Your task to perform on an android device: open app "Microsoft Authenticator" (install if not already installed) and go to login screen Image 0: 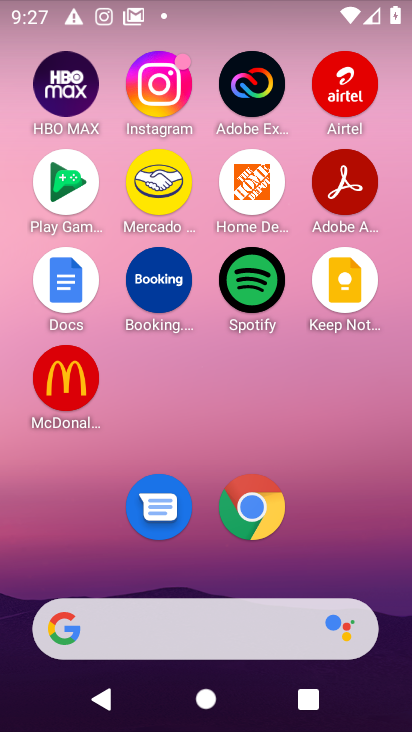
Step 0: drag from (197, 536) to (192, 66)
Your task to perform on an android device: open app "Microsoft Authenticator" (install if not already installed) and go to login screen Image 1: 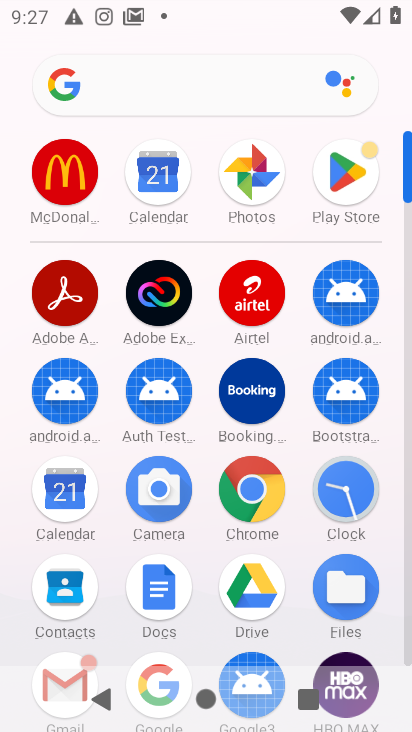
Step 1: click (357, 184)
Your task to perform on an android device: open app "Microsoft Authenticator" (install if not already installed) and go to login screen Image 2: 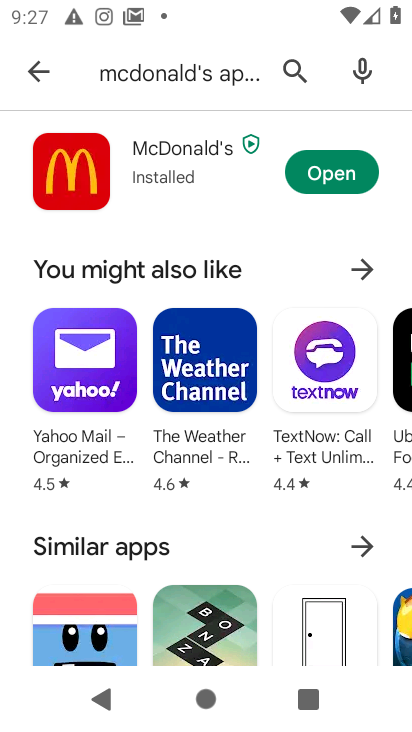
Step 2: click (44, 76)
Your task to perform on an android device: open app "Microsoft Authenticator" (install if not already installed) and go to login screen Image 3: 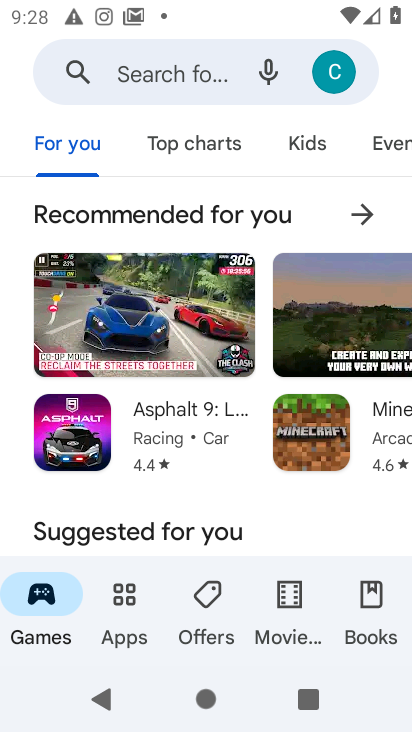
Step 3: click (123, 69)
Your task to perform on an android device: open app "Microsoft Authenticator" (install if not already installed) and go to login screen Image 4: 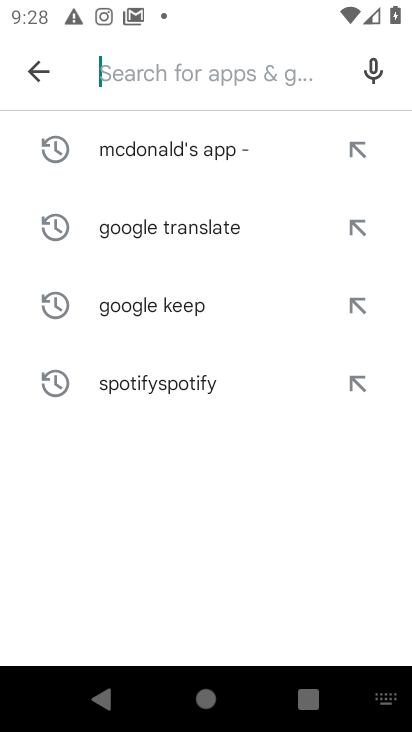
Step 4: type "Microsoft Authenticator"
Your task to perform on an android device: open app "Microsoft Authenticator" (install if not already installed) and go to login screen Image 5: 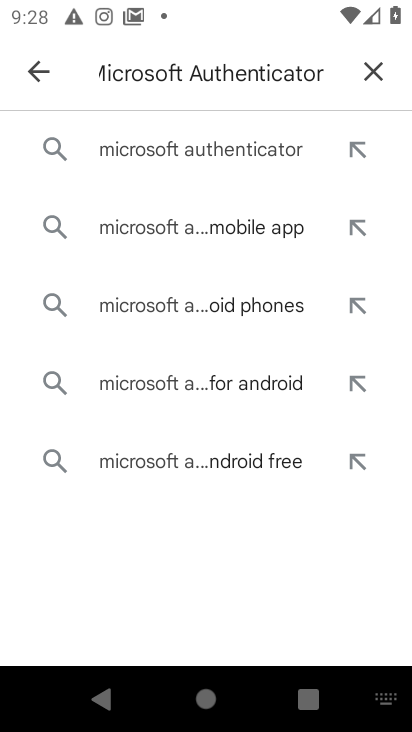
Step 5: click (242, 148)
Your task to perform on an android device: open app "Microsoft Authenticator" (install if not already installed) and go to login screen Image 6: 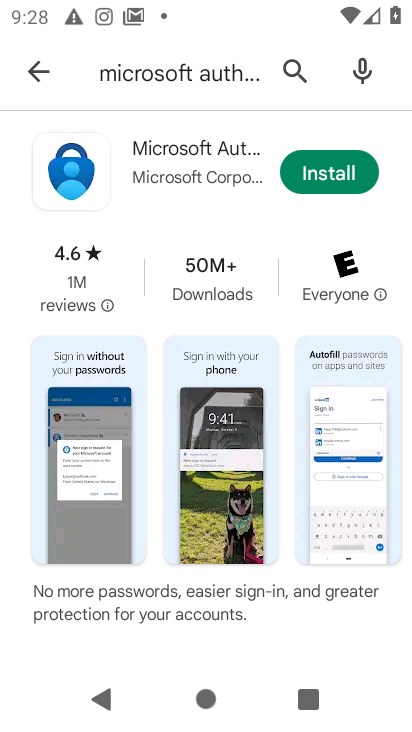
Step 6: click (317, 184)
Your task to perform on an android device: open app "Microsoft Authenticator" (install if not already installed) and go to login screen Image 7: 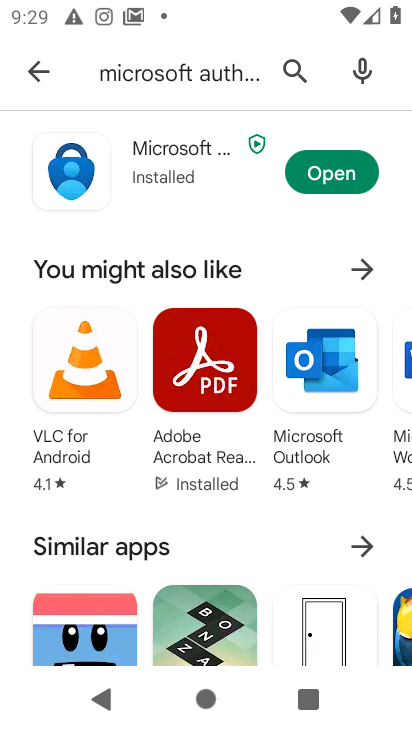
Step 7: click (317, 184)
Your task to perform on an android device: open app "Microsoft Authenticator" (install if not already installed) and go to login screen Image 8: 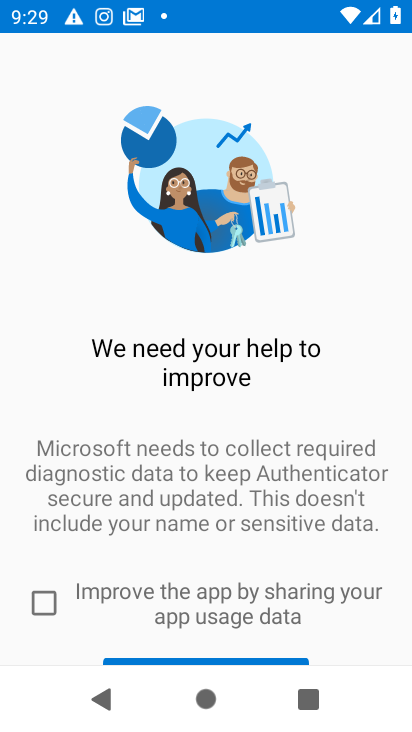
Step 8: click (46, 598)
Your task to perform on an android device: open app "Microsoft Authenticator" (install if not already installed) and go to login screen Image 9: 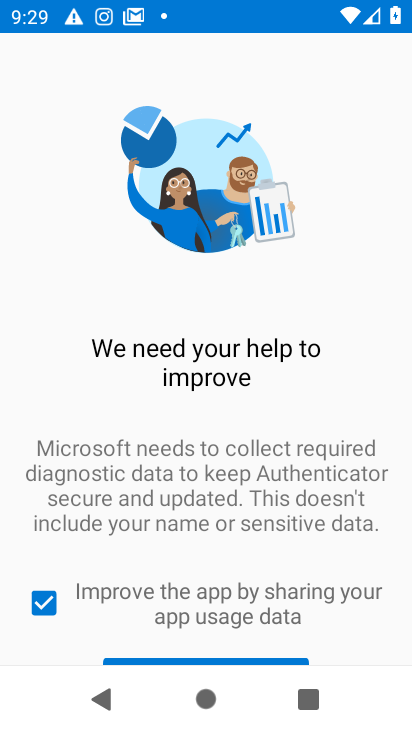
Step 9: drag from (148, 493) to (149, 58)
Your task to perform on an android device: open app "Microsoft Authenticator" (install if not already installed) and go to login screen Image 10: 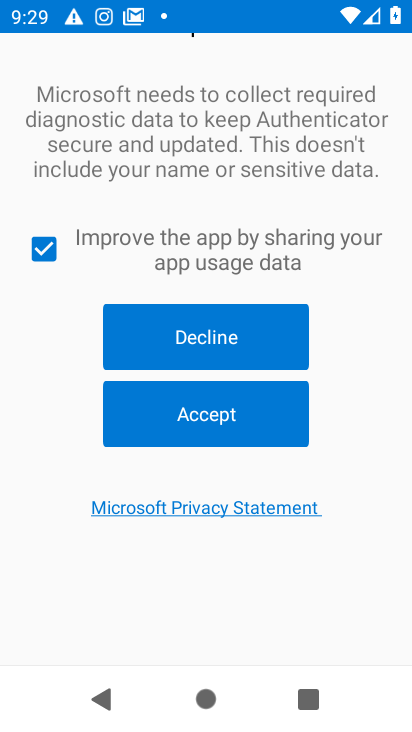
Step 10: click (169, 425)
Your task to perform on an android device: open app "Microsoft Authenticator" (install if not already installed) and go to login screen Image 11: 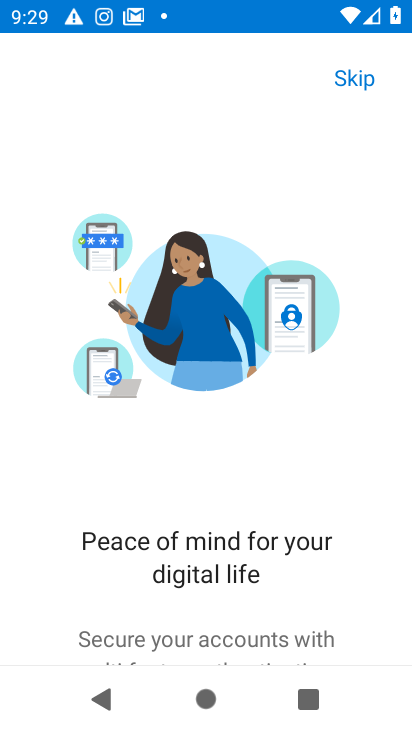
Step 11: task complete